Your task to perform on an android device: toggle sleep mode Image 0: 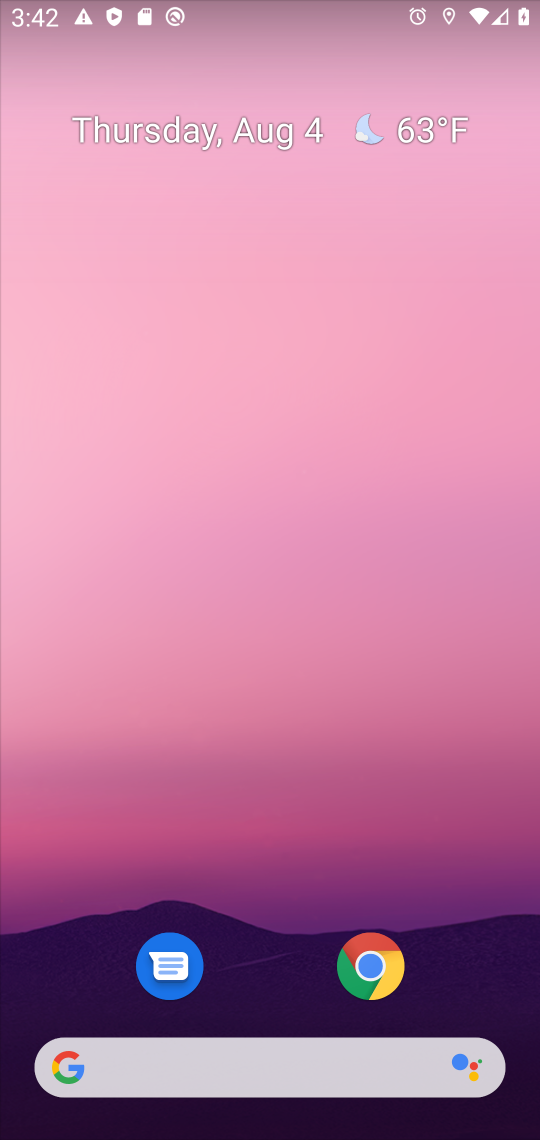
Step 0: drag from (279, 918) to (233, 212)
Your task to perform on an android device: toggle sleep mode Image 1: 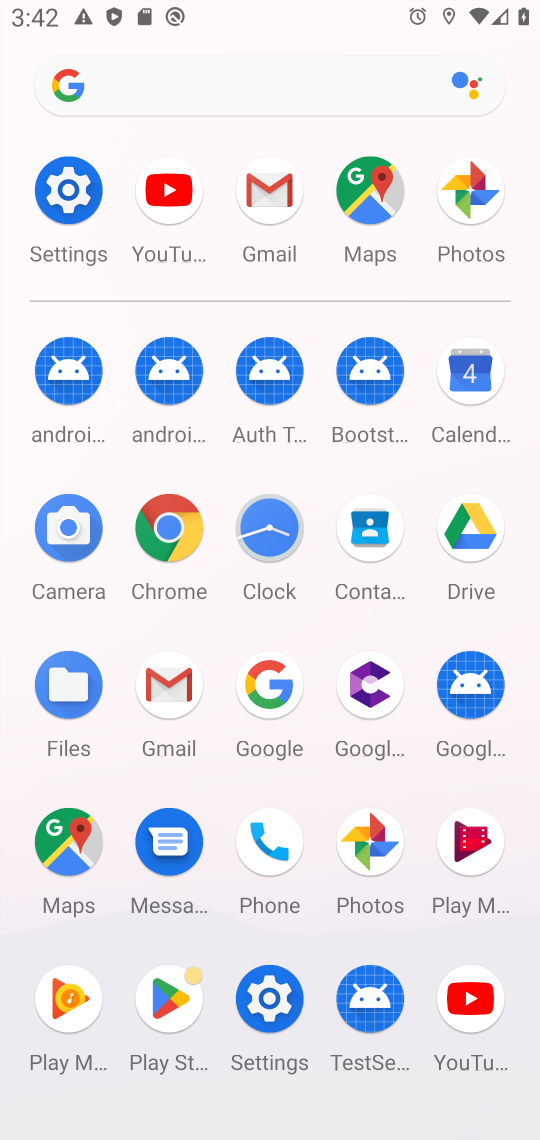
Step 1: click (84, 197)
Your task to perform on an android device: toggle sleep mode Image 2: 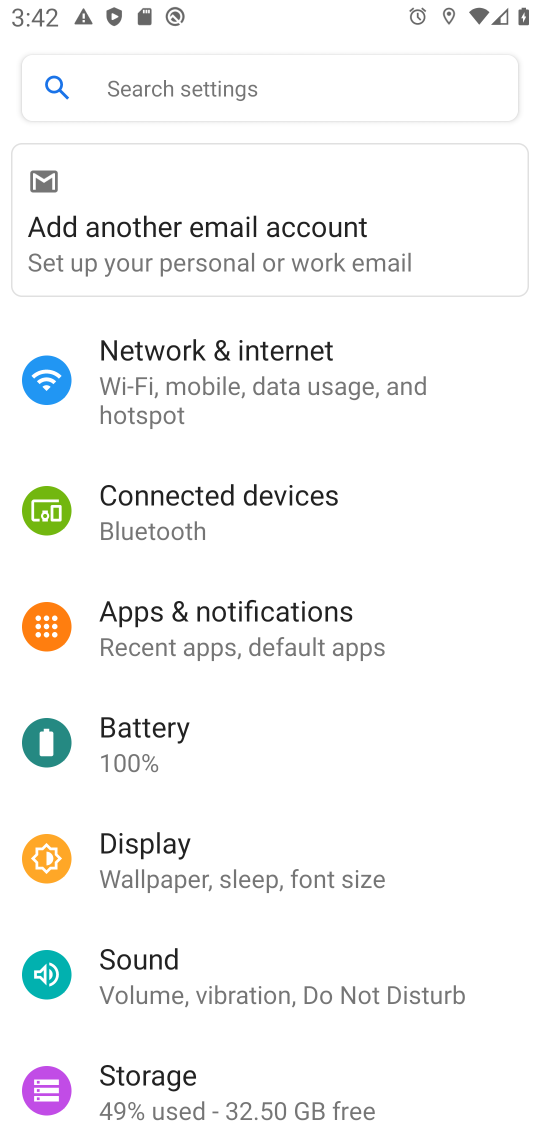
Step 2: click (154, 874)
Your task to perform on an android device: toggle sleep mode Image 3: 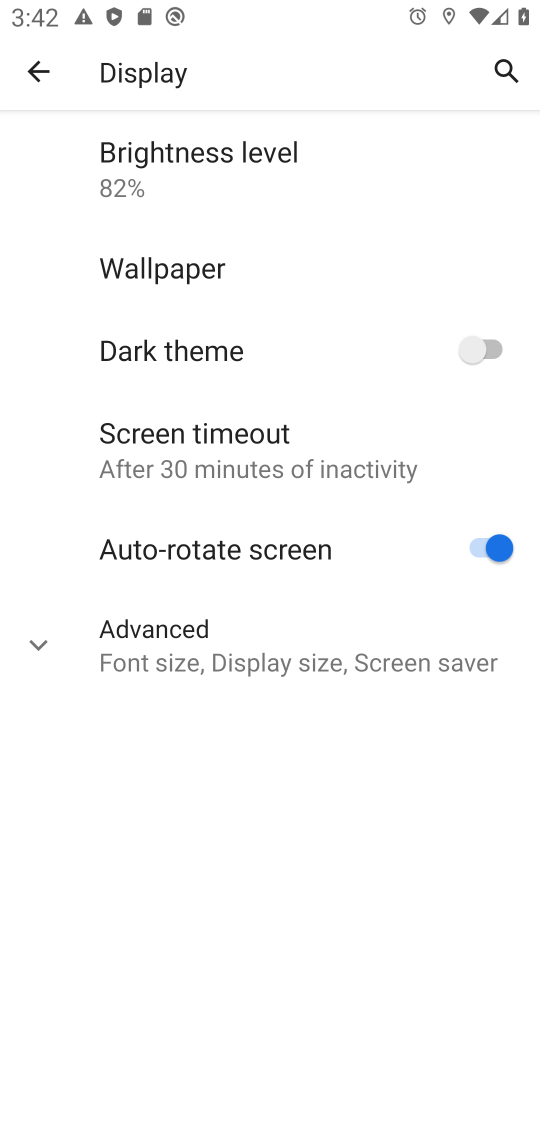
Step 3: task complete